Your task to perform on an android device: Open the phone app and click the voicemail tab. Image 0: 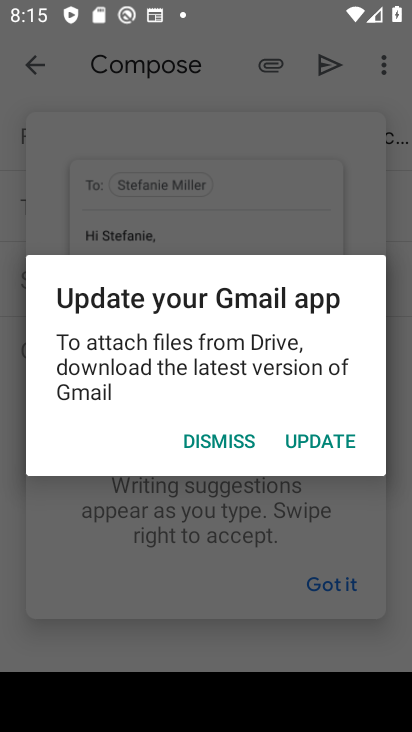
Step 0: press home button
Your task to perform on an android device: Open the phone app and click the voicemail tab. Image 1: 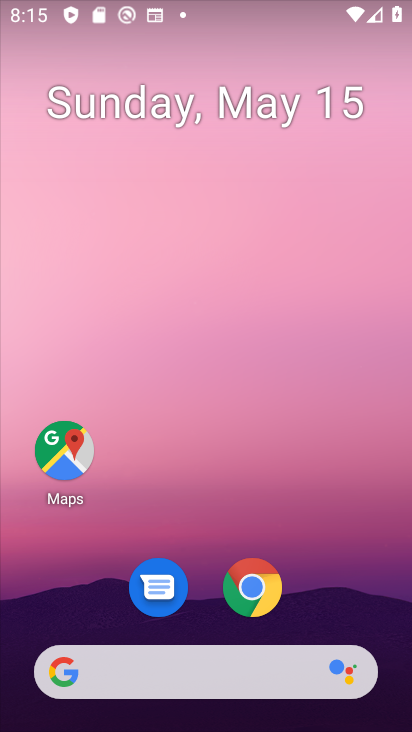
Step 1: drag from (194, 628) to (198, 232)
Your task to perform on an android device: Open the phone app and click the voicemail tab. Image 2: 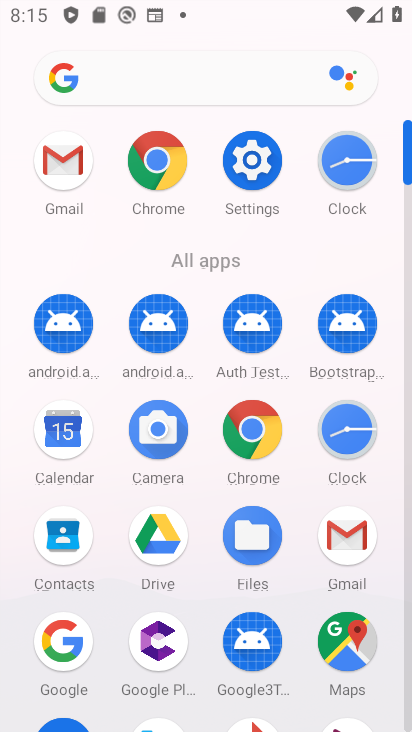
Step 2: drag from (202, 590) to (236, 252)
Your task to perform on an android device: Open the phone app and click the voicemail tab. Image 3: 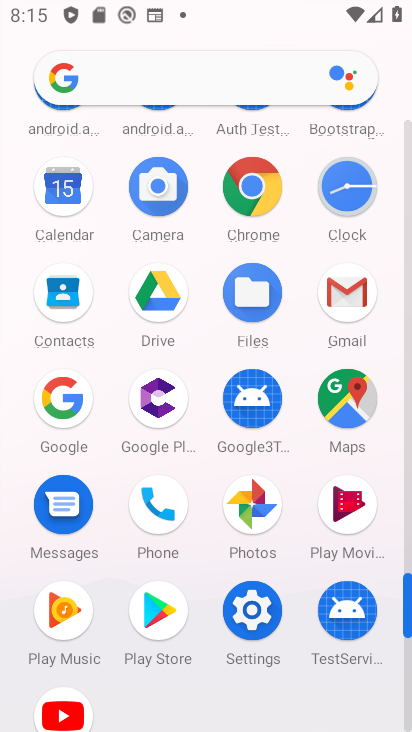
Step 3: click (152, 513)
Your task to perform on an android device: Open the phone app and click the voicemail tab. Image 4: 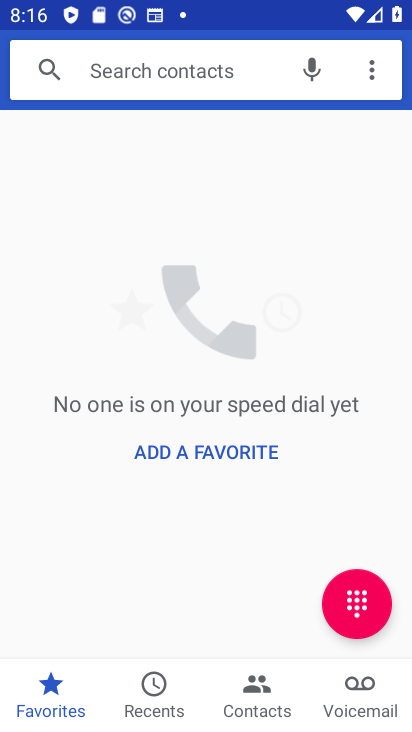
Step 4: click (366, 699)
Your task to perform on an android device: Open the phone app and click the voicemail tab. Image 5: 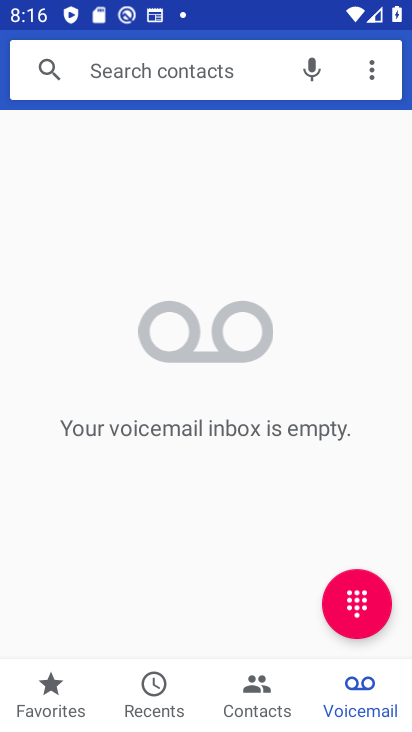
Step 5: task complete